Your task to perform on an android device: open device folders in google photos Image 0: 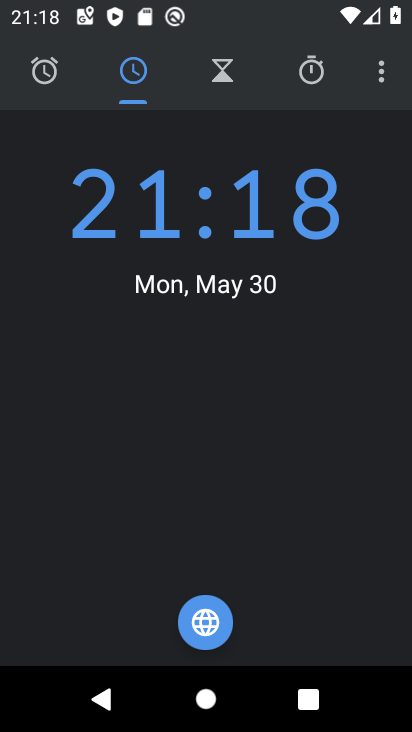
Step 0: press home button
Your task to perform on an android device: open device folders in google photos Image 1: 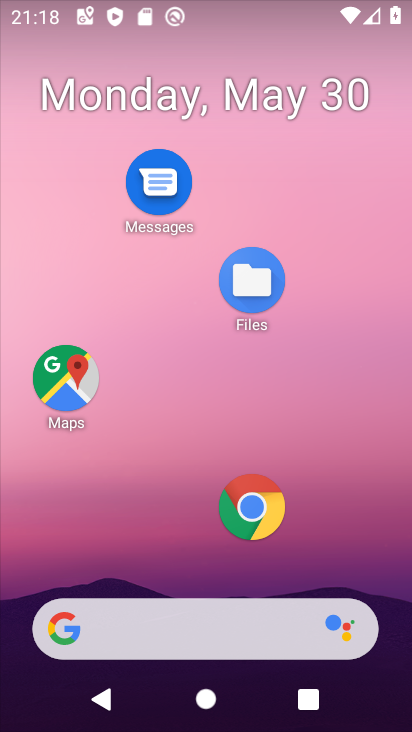
Step 1: drag from (235, 575) to (280, 171)
Your task to perform on an android device: open device folders in google photos Image 2: 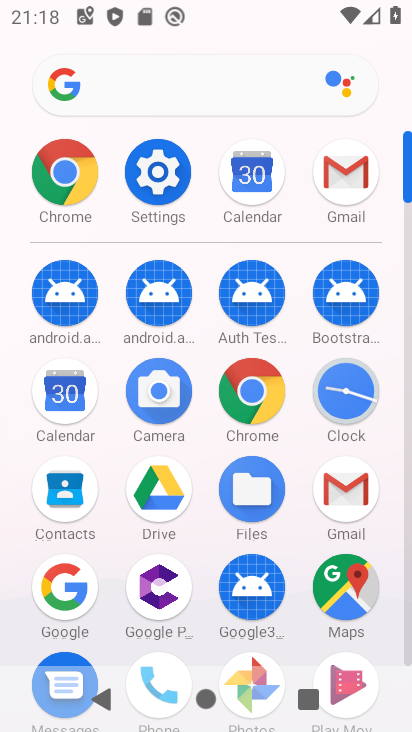
Step 2: drag from (183, 598) to (183, 315)
Your task to perform on an android device: open device folders in google photos Image 3: 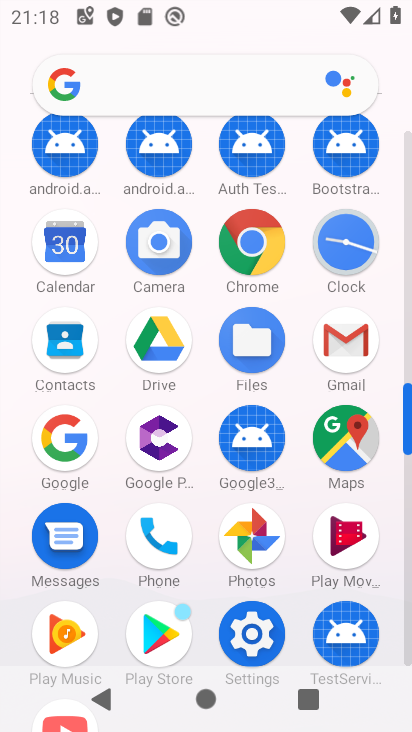
Step 3: click (251, 546)
Your task to perform on an android device: open device folders in google photos Image 4: 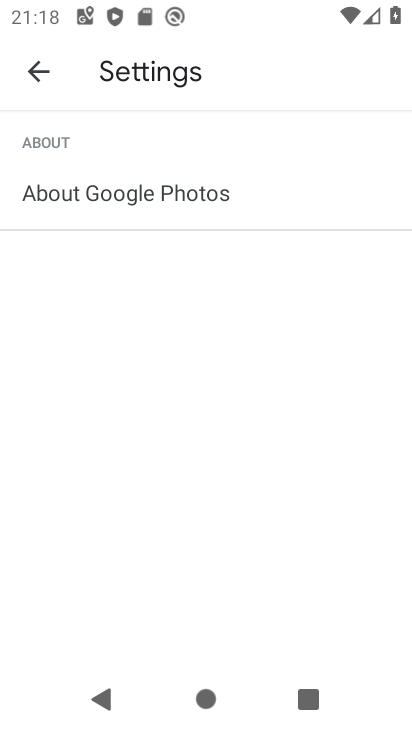
Step 4: click (30, 74)
Your task to perform on an android device: open device folders in google photos Image 5: 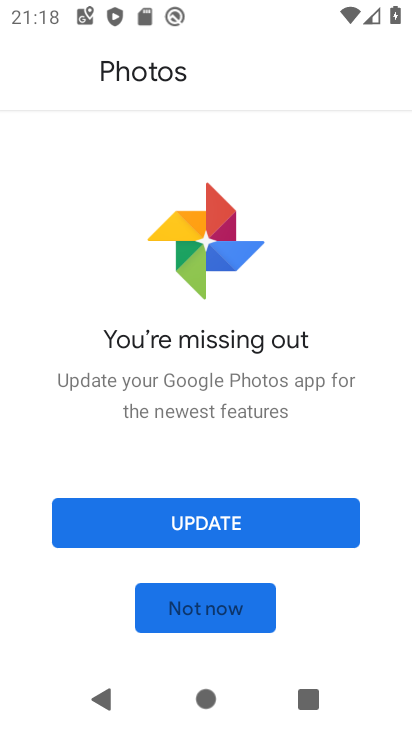
Step 5: click (57, 67)
Your task to perform on an android device: open device folders in google photos Image 6: 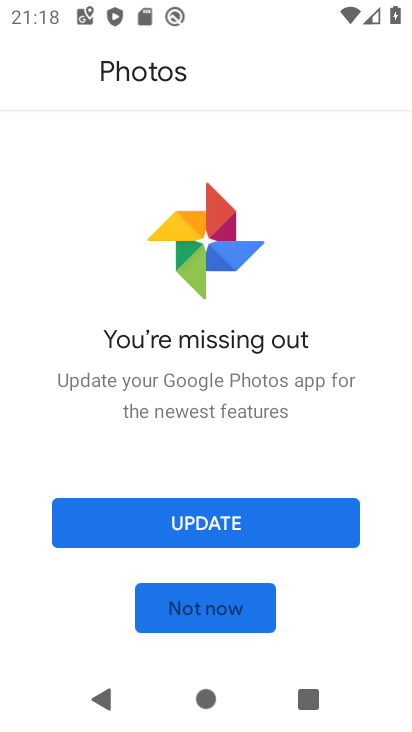
Step 6: click (196, 610)
Your task to perform on an android device: open device folders in google photos Image 7: 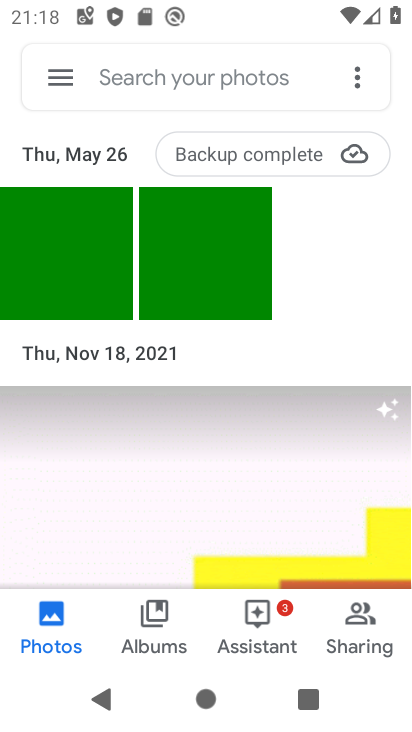
Step 7: click (54, 87)
Your task to perform on an android device: open device folders in google photos Image 8: 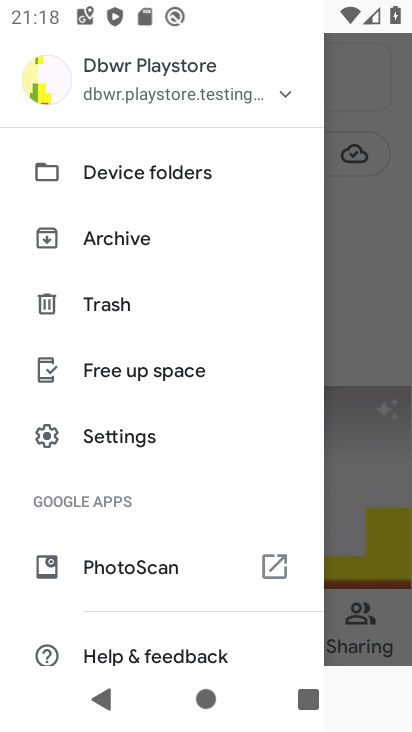
Step 8: click (168, 175)
Your task to perform on an android device: open device folders in google photos Image 9: 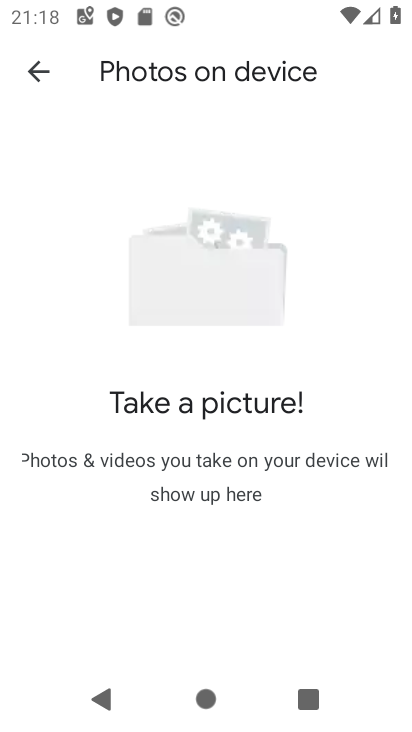
Step 9: task complete